Your task to perform on an android device: toggle sleep mode Image 0: 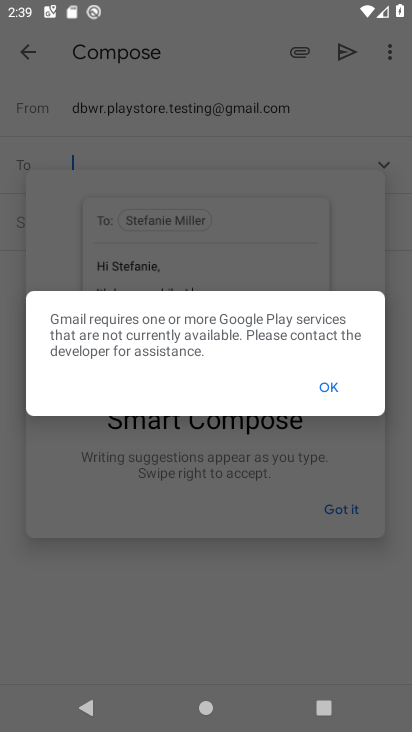
Step 0: press home button
Your task to perform on an android device: toggle sleep mode Image 1: 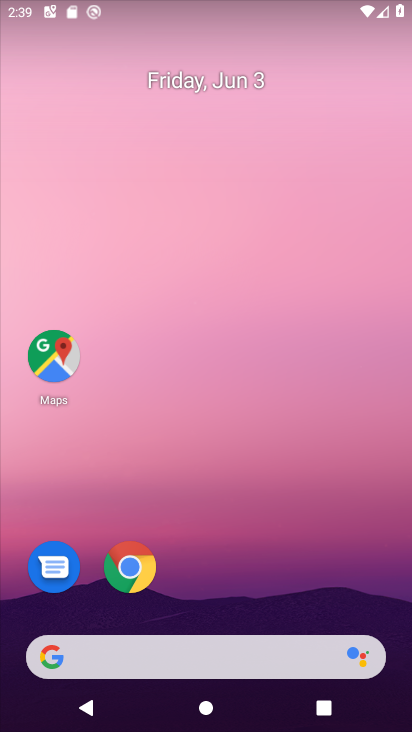
Step 1: drag from (235, 590) to (246, 176)
Your task to perform on an android device: toggle sleep mode Image 2: 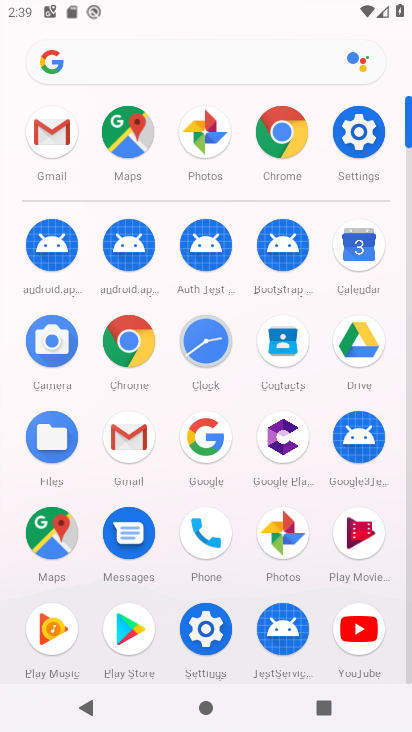
Step 2: click (349, 115)
Your task to perform on an android device: toggle sleep mode Image 3: 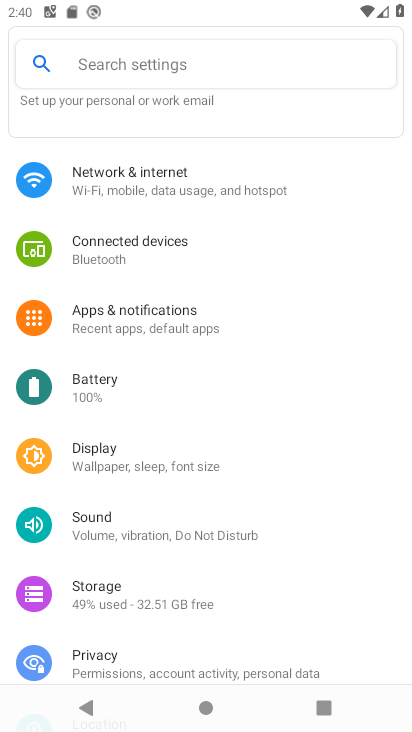
Step 3: task complete